Your task to perform on an android device: clear history in the chrome app Image 0: 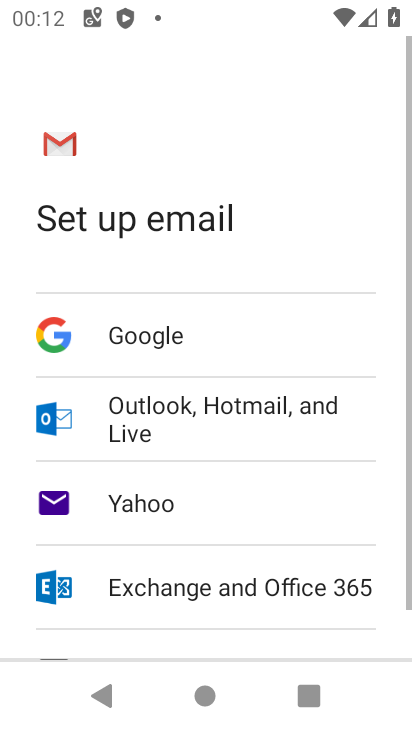
Step 0: press home button
Your task to perform on an android device: clear history in the chrome app Image 1: 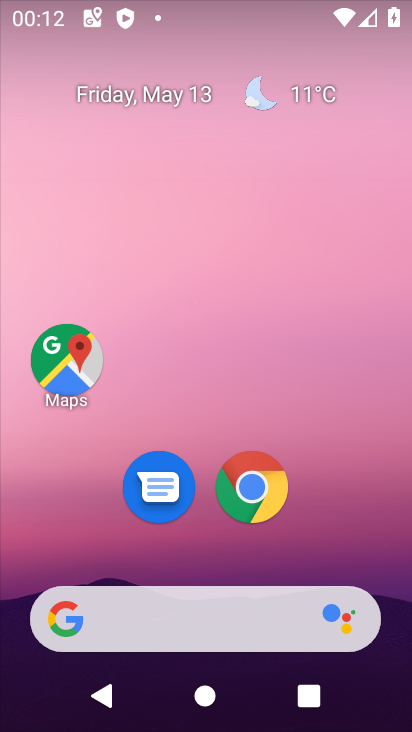
Step 1: click (263, 487)
Your task to perform on an android device: clear history in the chrome app Image 2: 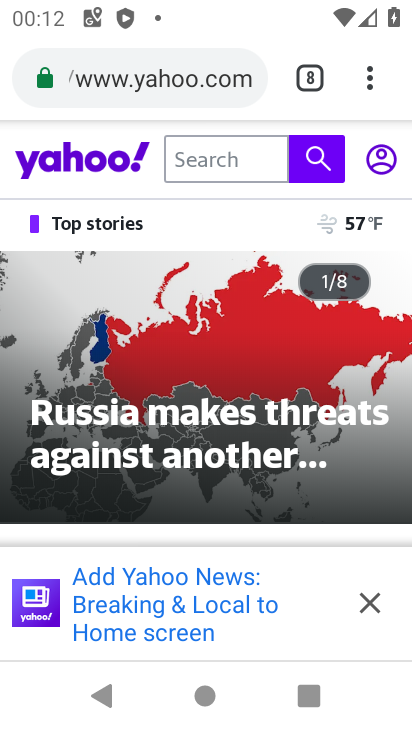
Step 2: click (372, 68)
Your task to perform on an android device: clear history in the chrome app Image 3: 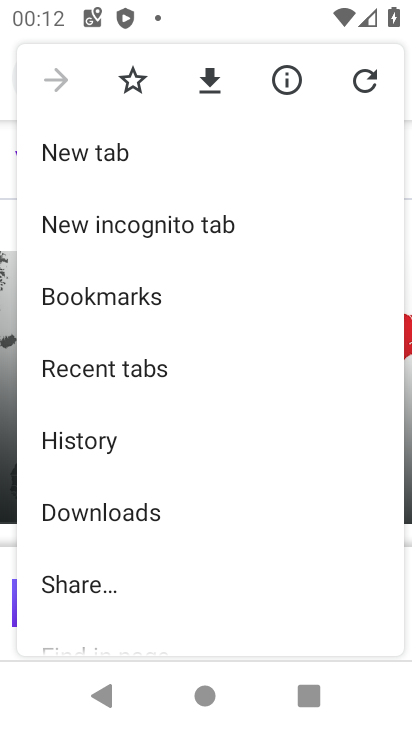
Step 3: click (105, 461)
Your task to perform on an android device: clear history in the chrome app Image 4: 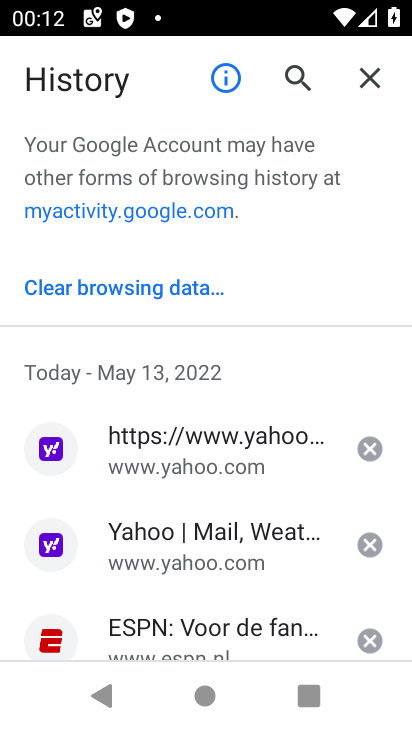
Step 4: click (127, 284)
Your task to perform on an android device: clear history in the chrome app Image 5: 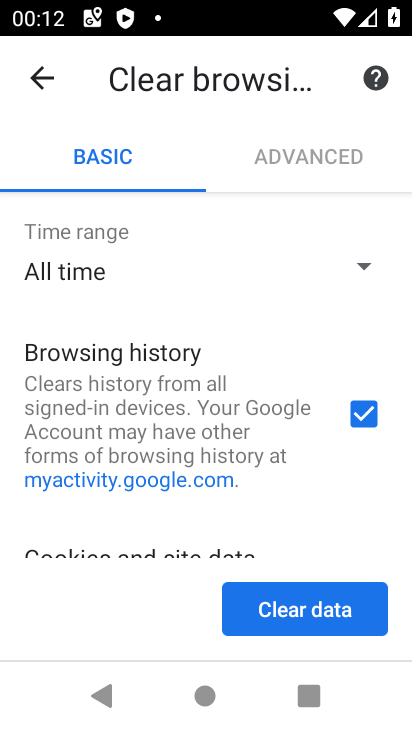
Step 5: click (293, 620)
Your task to perform on an android device: clear history in the chrome app Image 6: 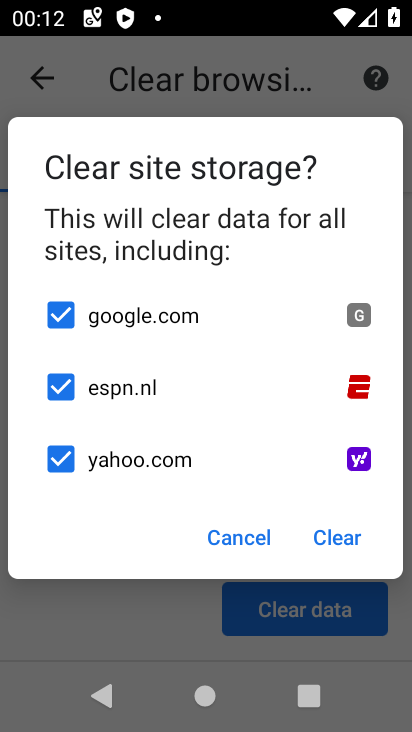
Step 6: click (316, 542)
Your task to perform on an android device: clear history in the chrome app Image 7: 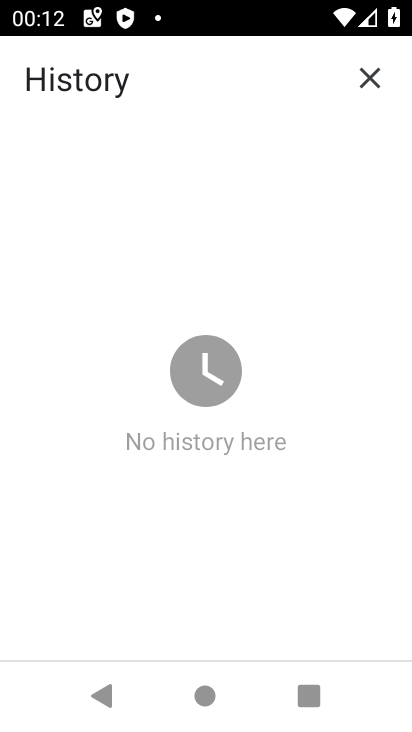
Step 7: task complete